Your task to perform on an android device: Search for vegetarian restaurants on Maps Image 0: 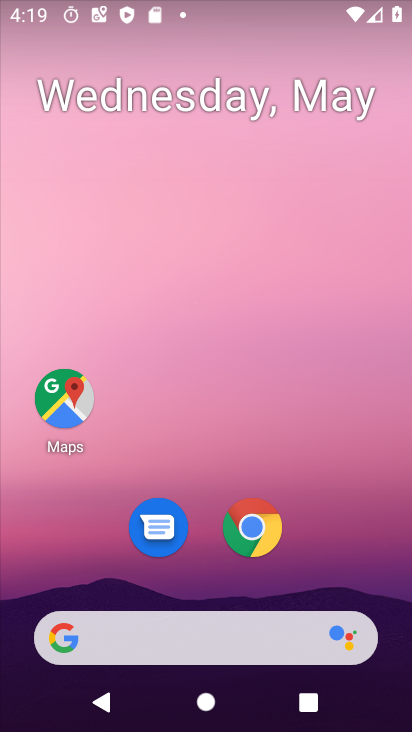
Step 0: press home button
Your task to perform on an android device: Search for vegetarian restaurants on Maps Image 1: 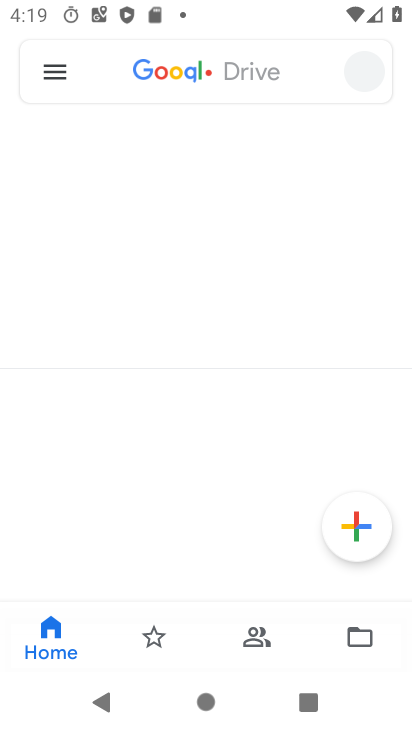
Step 1: press home button
Your task to perform on an android device: Search for vegetarian restaurants on Maps Image 2: 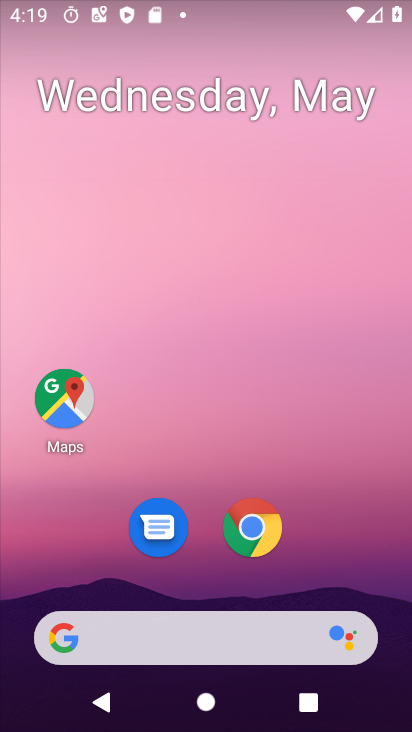
Step 2: press home button
Your task to perform on an android device: Search for vegetarian restaurants on Maps Image 3: 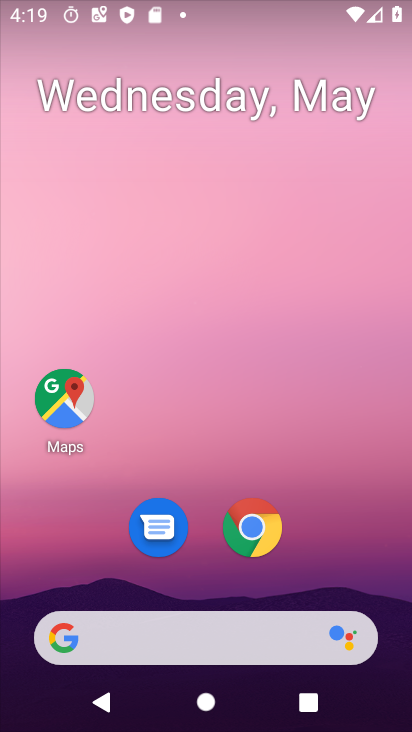
Step 3: click (260, 652)
Your task to perform on an android device: Search for vegetarian restaurants on Maps Image 4: 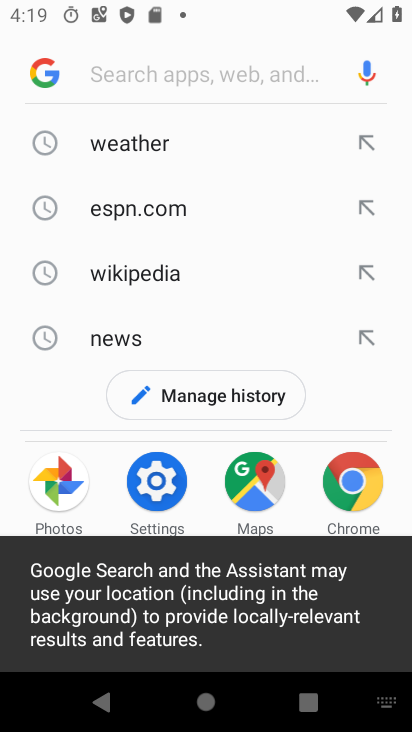
Step 4: press home button
Your task to perform on an android device: Search for vegetarian restaurants on Maps Image 5: 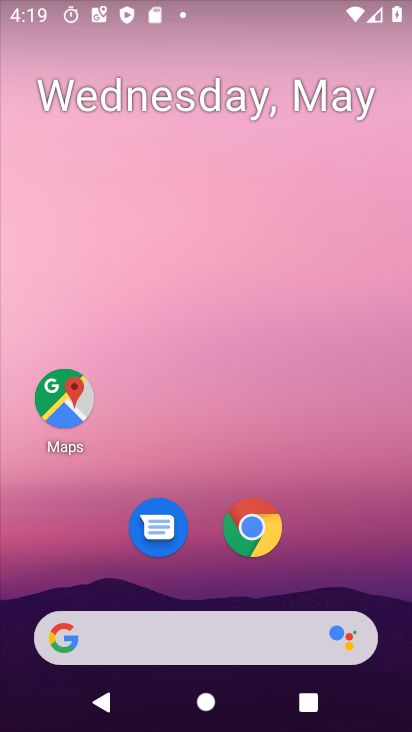
Step 5: click (72, 393)
Your task to perform on an android device: Search for vegetarian restaurants on Maps Image 6: 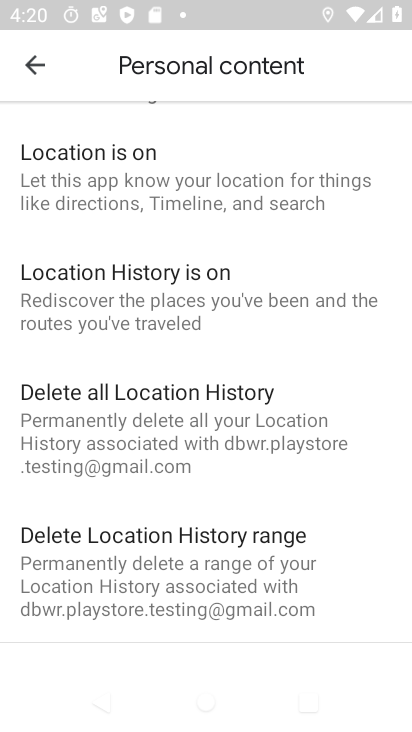
Step 6: click (44, 60)
Your task to perform on an android device: Search for vegetarian restaurants on Maps Image 7: 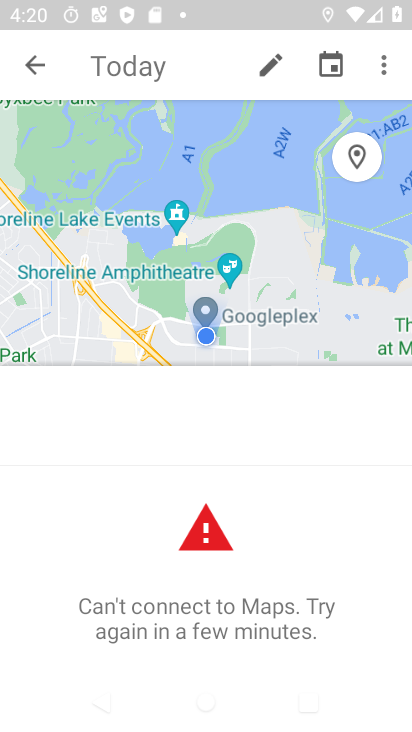
Step 7: click (44, 60)
Your task to perform on an android device: Search for vegetarian restaurants on Maps Image 8: 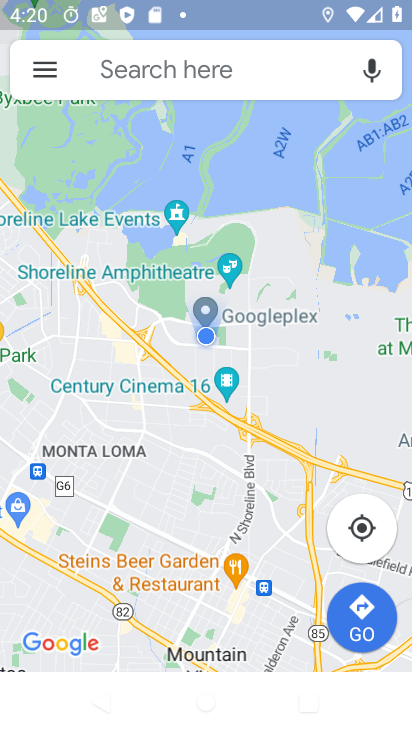
Step 8: click (154, 62)
Your task to perform on an android device: Search for vegetarian restaurants on Maps Image 9: 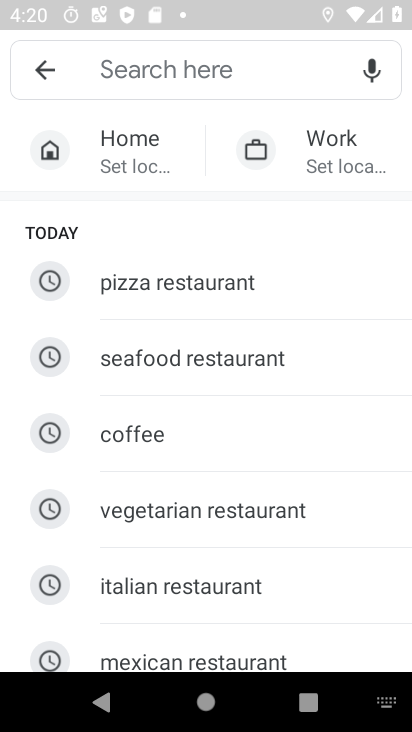
Step 9: type " pizza restaurants "
Your task to perform on an android device: Search for vegetarian restaurants on Maps Image 10: 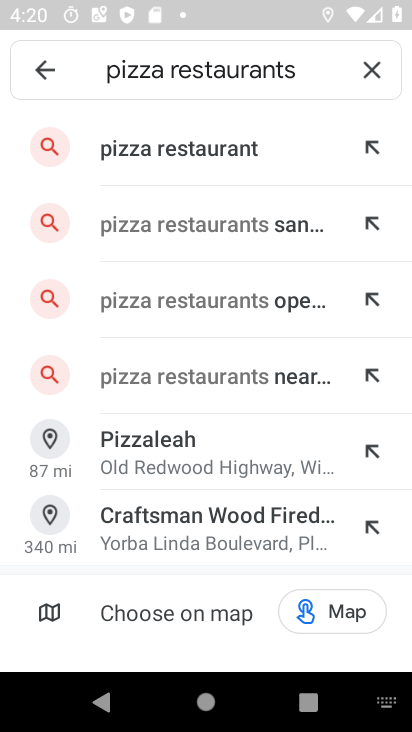
Step 10: click (94, 148)
Your task to perform on an android device: Search for vegetarian restaurants on Maps Image 11: 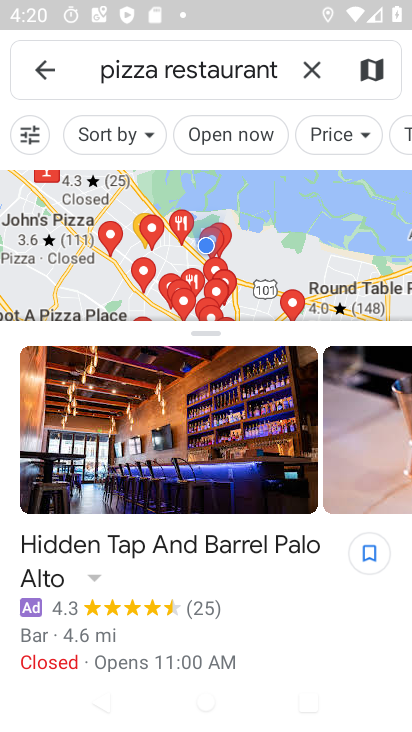
Step 11: task complete